Your task to perform on an android device: Go to Google maps Image 0: 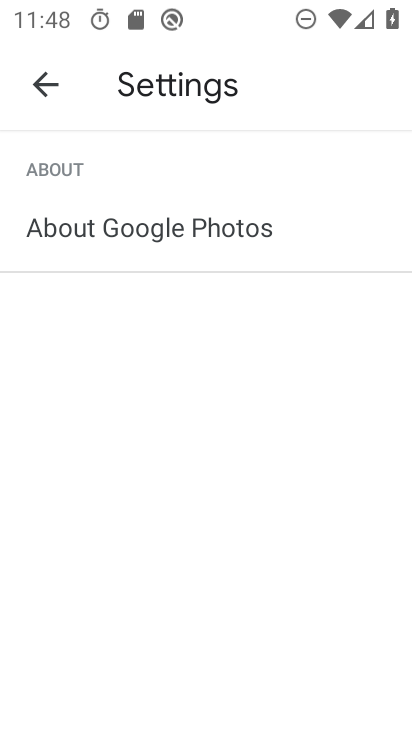
Step 0: press home button
Your task to perform on an android device: Go to Google maps Image 1: 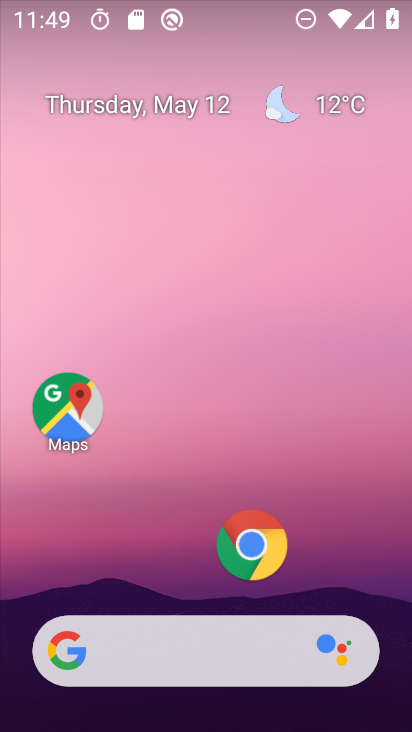
Step 1: click (65, 403)
Your task to perform on an android device: Go to Google maps Image 2: 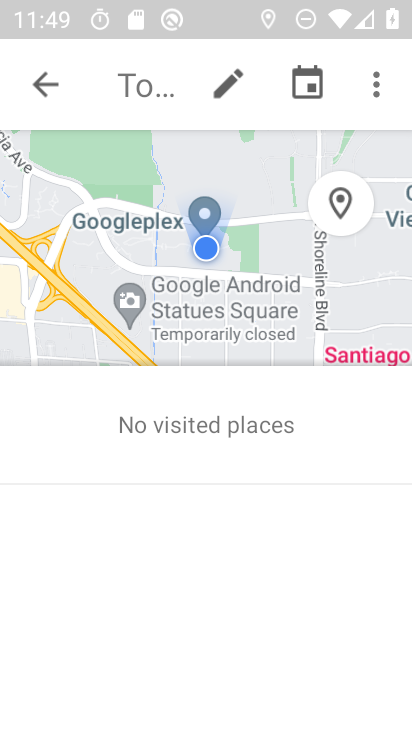
Step 2: click (50, 93)
Your task to perform on an android device: Go to Google maps Image 3: 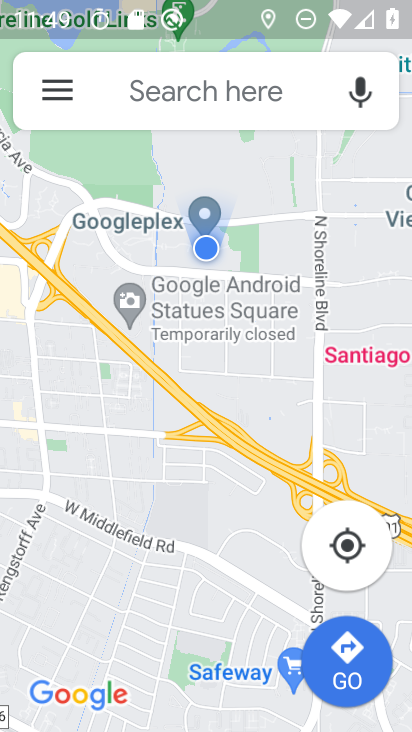
Step 3: click (58, 90)
Your task to perform on an android device: Go to Google maps Image 4: 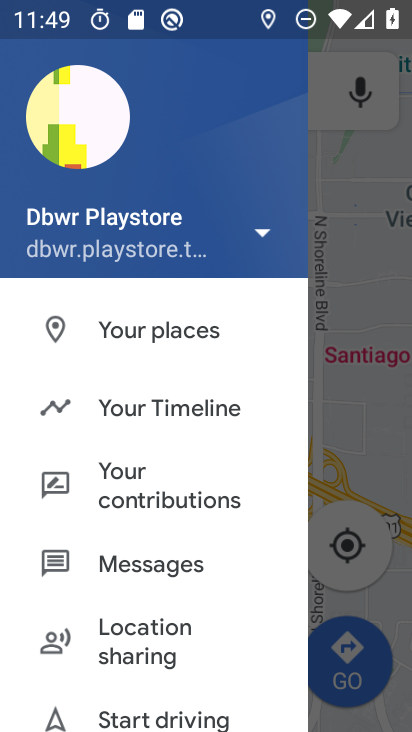
Step 4: click (354, 439)
Your task to perform on an android device: Go to Google maps Image 5: 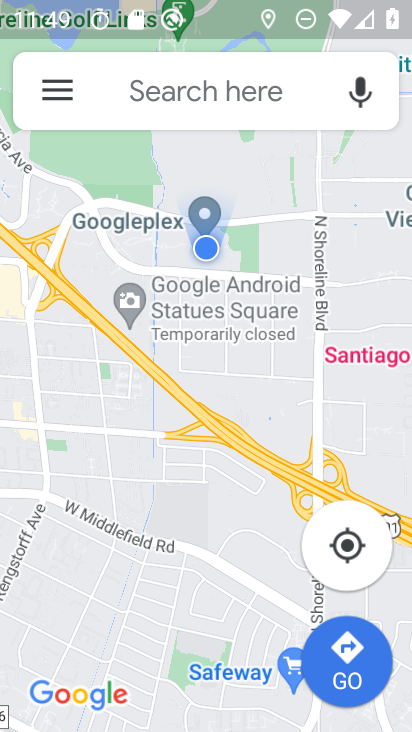
Step 5: task complete